Your task to perform on an android device: Open Reddit.com Image 0: 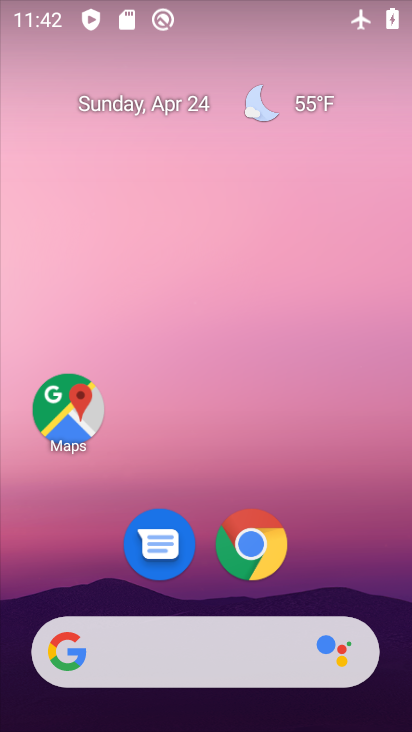
Step 0: click (258, 555)
Your task to perform on an android device: Open Reddit.com Image 1: 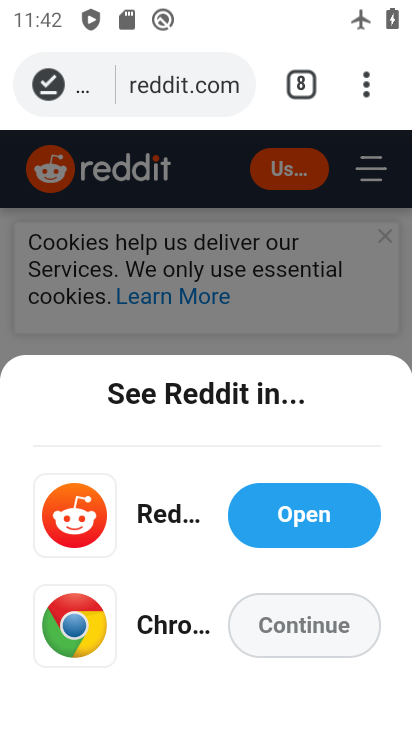
Step 1: task complete